Your task to perform on an android device: turn on sleep mode Image 0: 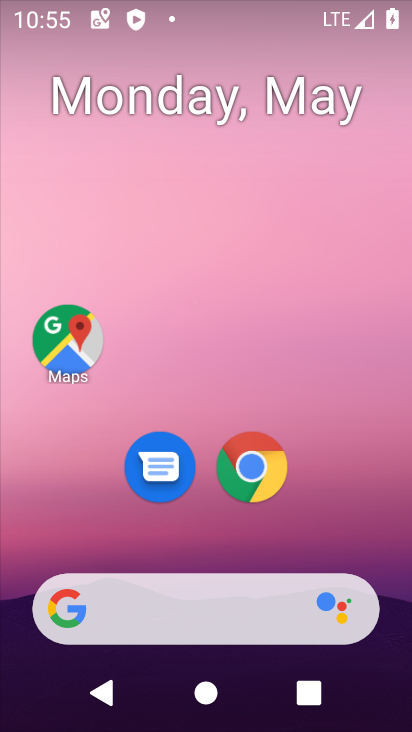
Step 0: drag from (384, 628) to (311, 112)
Your task to perform on an android device: turn on sleep mode Image 1: 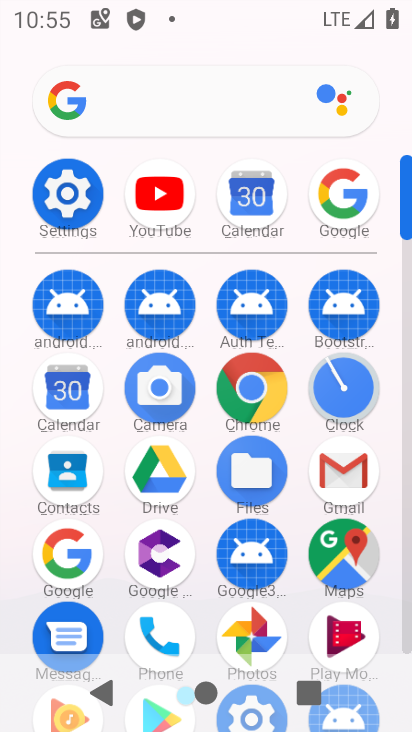
Step 1: click (80, 195)
Your task to perform on an android device: turn on sleep mode Image 2: 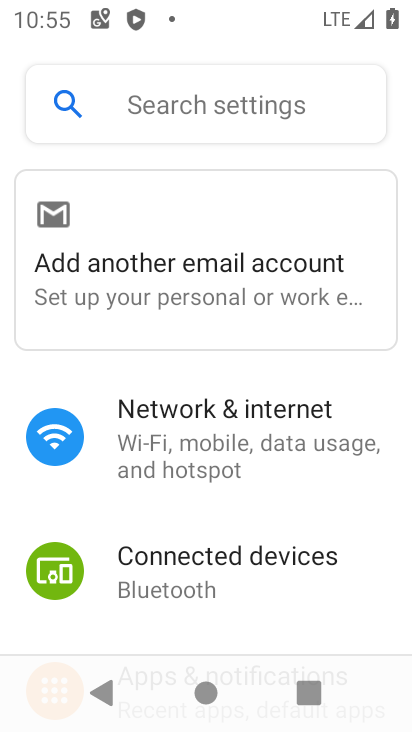
Step 2: click (246, 140)
Your task to perform on an android device: turn on sleep mode Image 3: 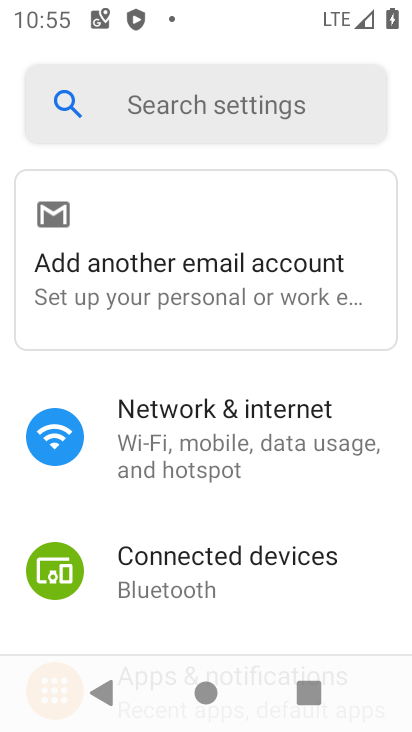
Step 3: click (245, 277)
Your task to perform on an android device: turn on sleep mode Image 4: 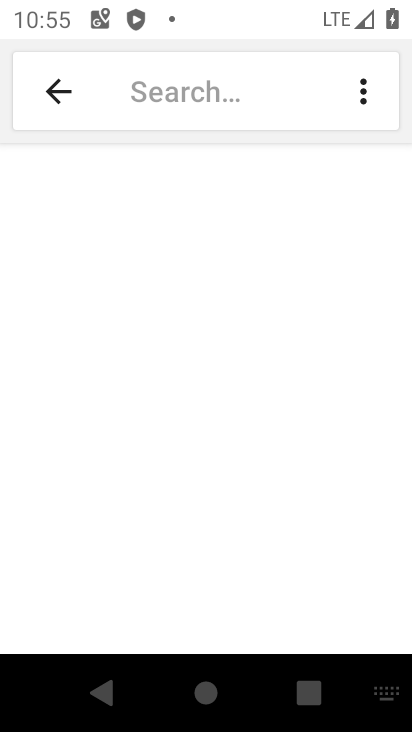
Step 4: click (63, 96)
Your task to perform on an android device: turn on sleep mode Image 5: 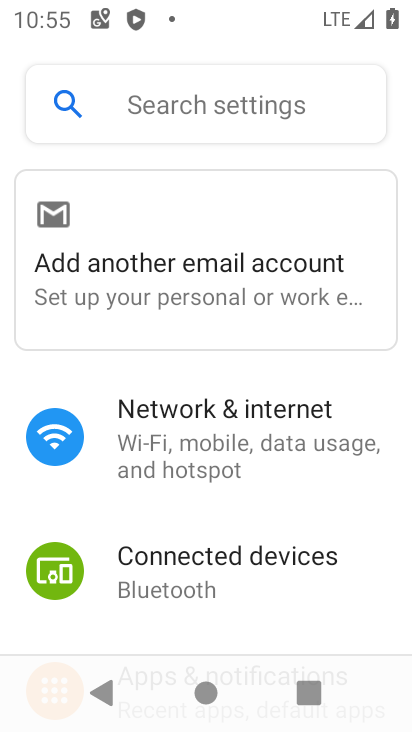
Step 5: drag from (171, 592) to (179, 307)
Your task to perform on an android device: turn on sleep mode Image 6: 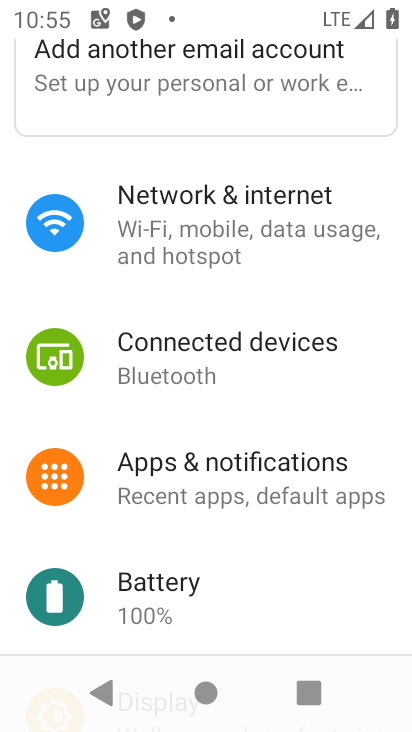
Step 6: drag from (217, 597) to (231, 251)
Your task to perform on an android device: turn on sleep mode Image 7: 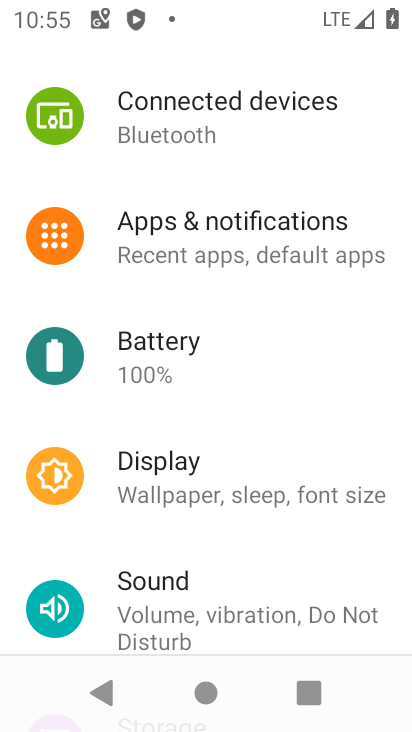
Step 7: click (166, 476)
Your task to perform on an android device: turn on sleep mode Image 8: 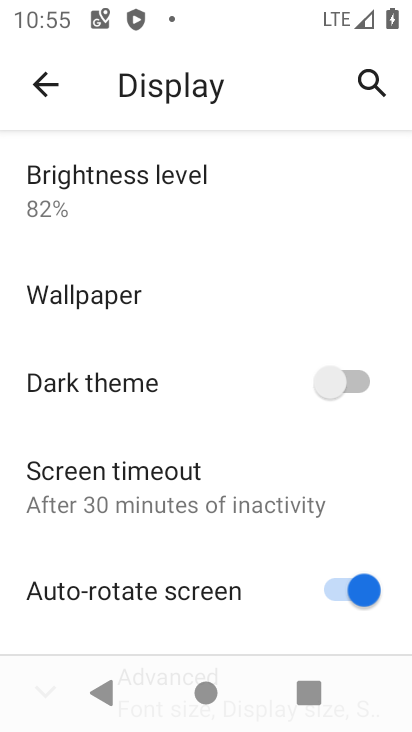
Step 8: click (79, 471)
Your task to perform on an android device: turn on sleep mode Image 9: 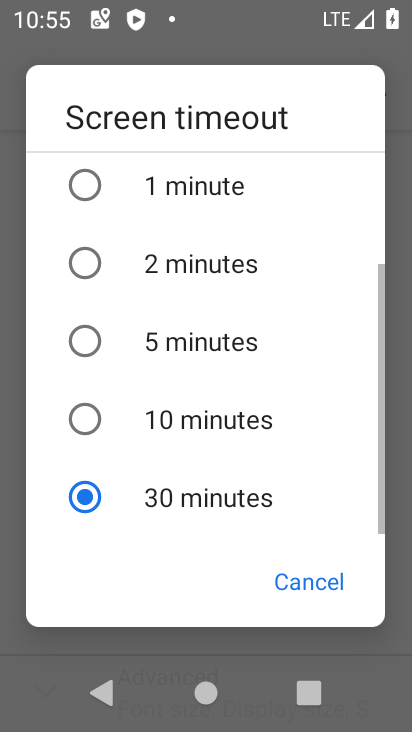
Step 9: task complete